Your task to perform on an android device: turn off translation in the chrome app Image 0: 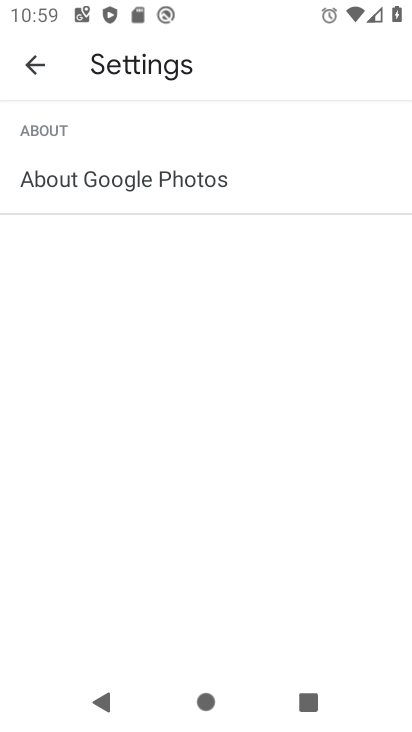
Step 0: press home button
Your task to perform on an android device: turn off translation in the chrome app Image 1: 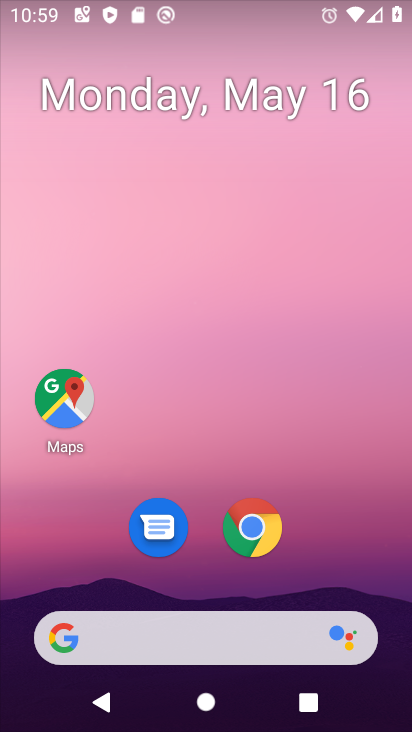
Step 1: click (267, 538)
Your task to perform on an android device: turn off translation in the chrome app Image 2: 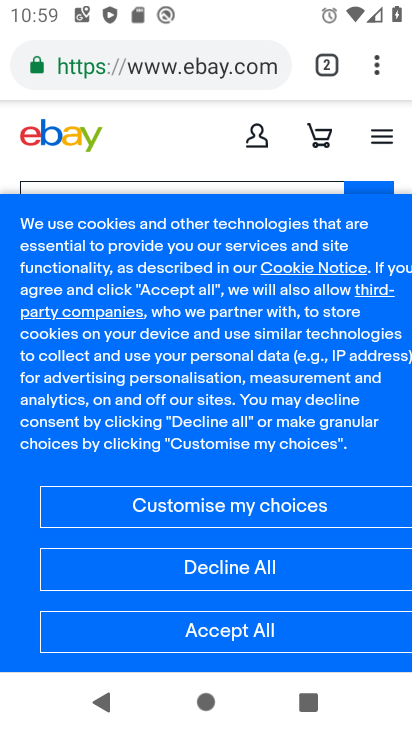
Step 2: click (379, 69)
Your task to perform on an android device: turn off translation in the chrome app Image 3: 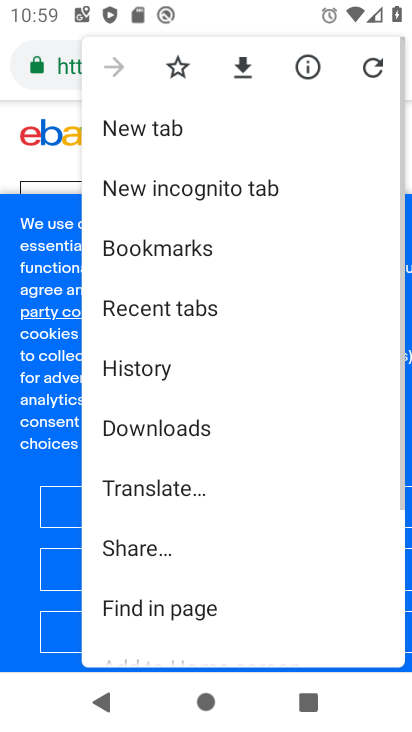
Step 3: drag from (238, 546) to (266, 158)
Your task to perform on an android device: turn off translation in the chrome app Image 4: 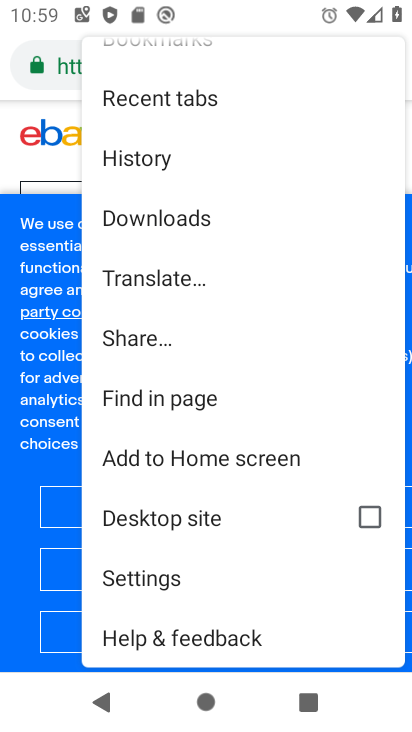
Step 4: click (143, 579)
Your task to perform on an android device: turn off translation in the chrome app Image 5: 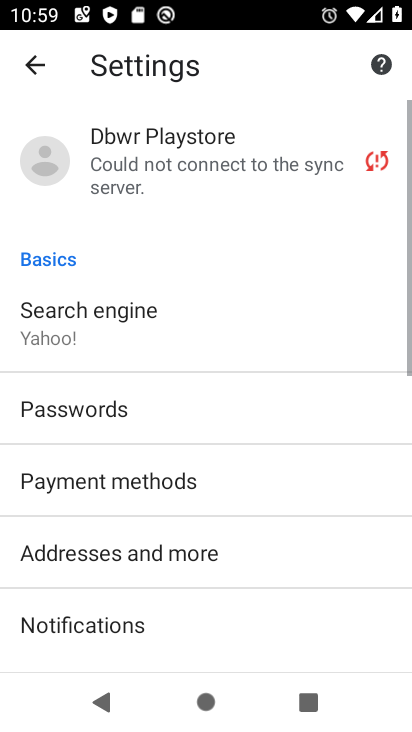
Step 5: drag from (245, 577) to (265, 159)
Your task to perform on an android device: turn off translation in the chrome app Image 6: 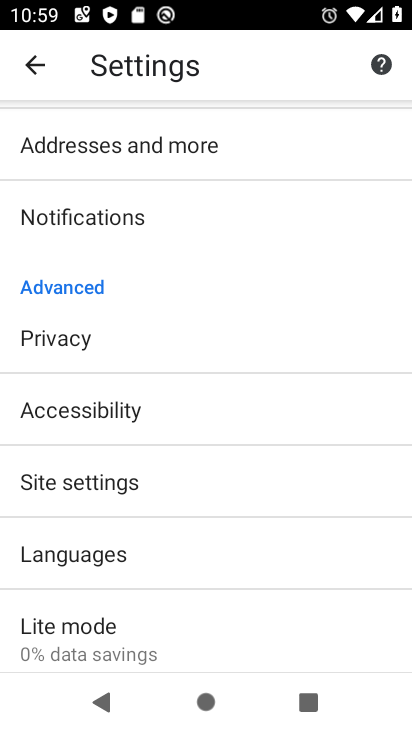
Step 6: click (103, 554)
Your task to perform on an android device: turn off translation in the chrome app Image 7: 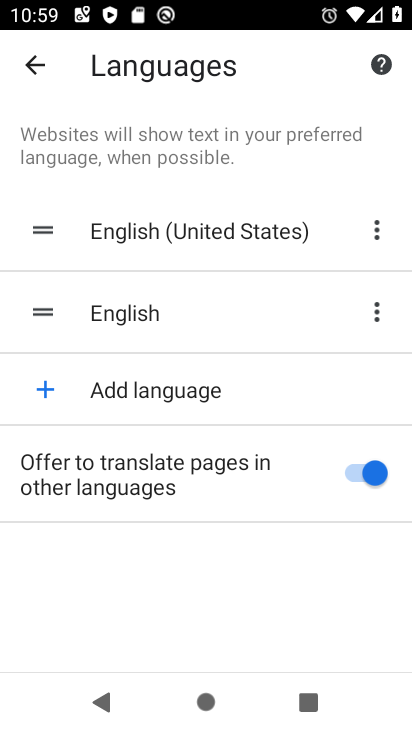
Step 7: click (376, 482)
Your task to perform on an android device: turn off translation in the chrome app Image 8: 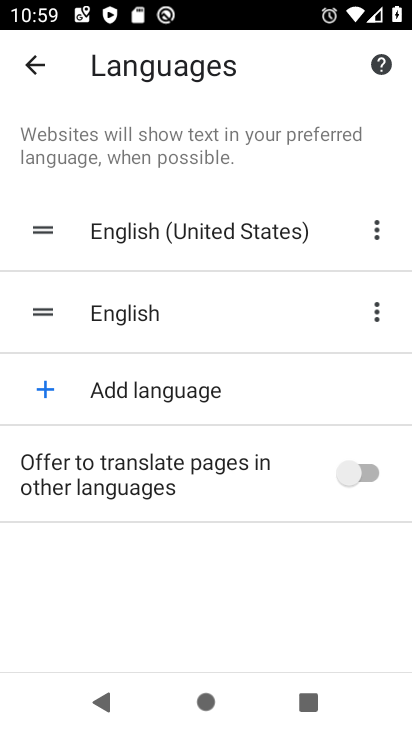
Step 8: task complete